Your task to perform on an android device: turn vacation reply on in the gmail app Image 0: 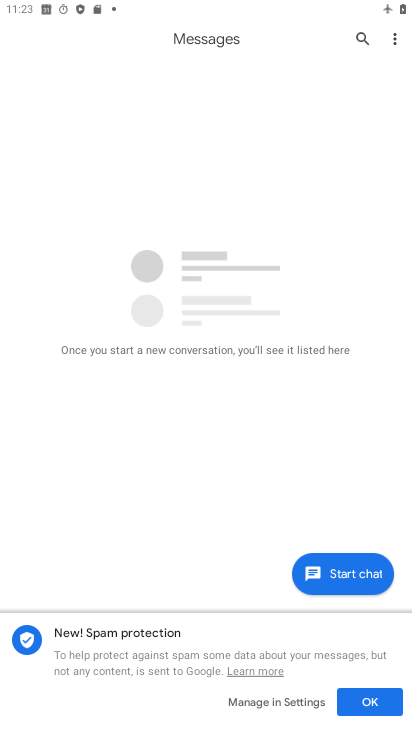
Step 0: drag from (229, 564) to (344, 361)
Your task to perform on an android device: turn vacation reply on in the gmail app Image 1: 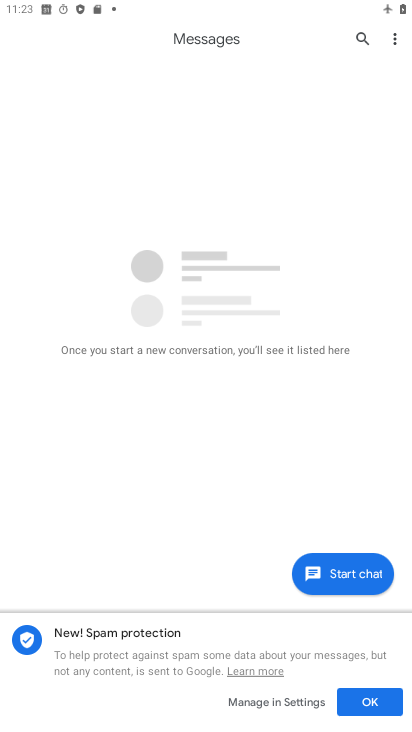
Step 1: press home button
Your task to perform on an android device: turn vacation reply on in the gmail app Image 2: 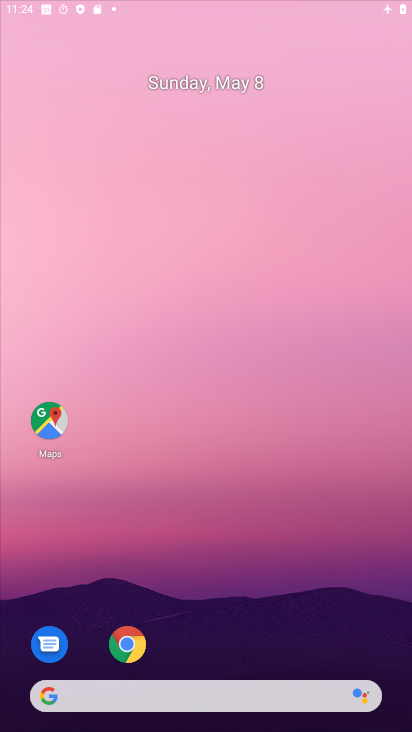
Step 2: drag from (220, 597) to (239, 160)
Your task to perform on an android device: turn vacation reply on in the gmail app Image 3: 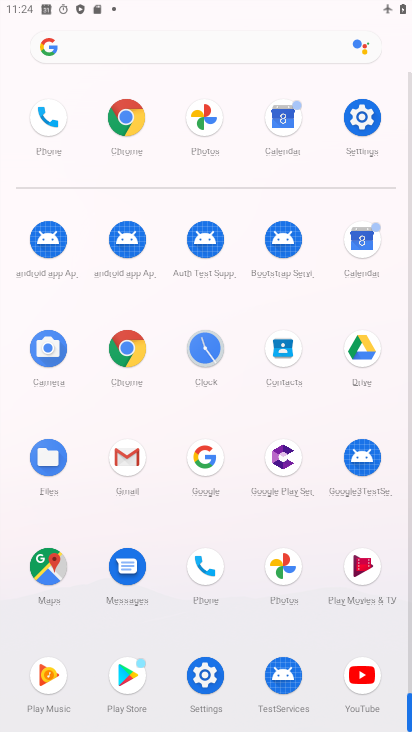
Step 3: click (130, 451)
Your task to perform on an android device: turn vacation reply on in the gmail app Image 4: 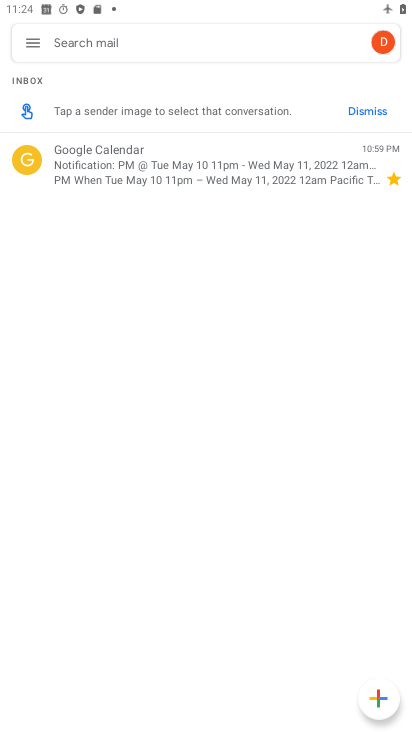
Step 4: click (29, 44)
Your task to perform on an android device: turn vacation reply on in the gmail app Image 5: 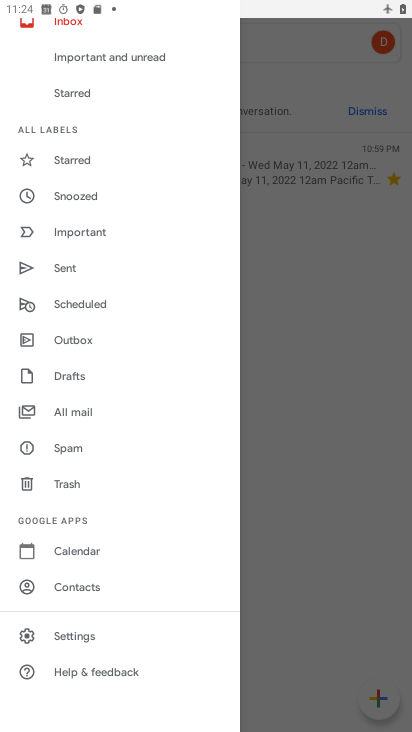
Step 5: click (91, 623)
Your task to perform on an android device: turn vacation reply on in the gmail app Image 6: 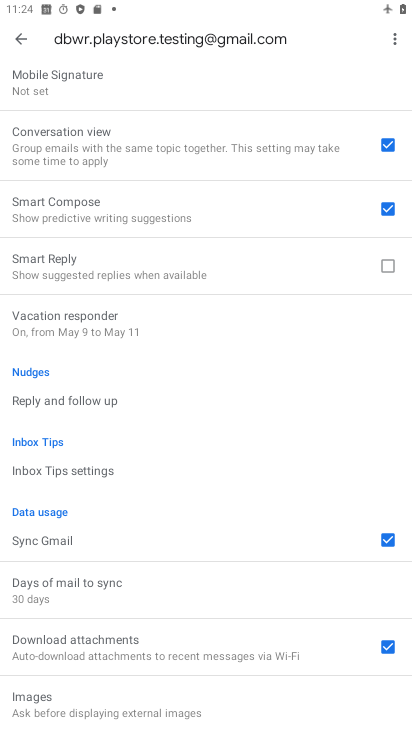
Step 6: click (104, 319)
Your task to perform on an android device: turn vacation reply on in the gmail app Image 7: 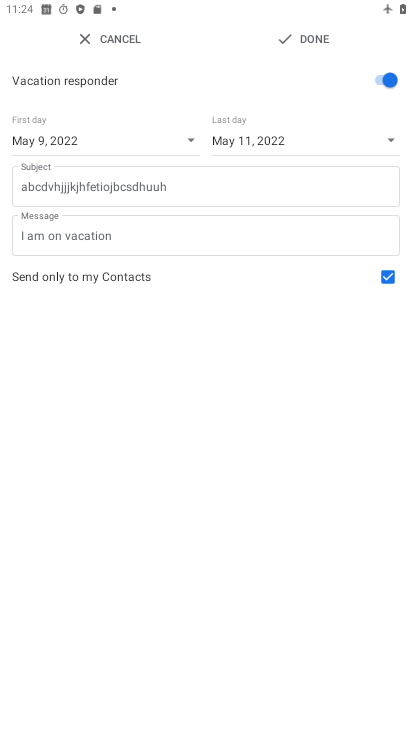
Step 7: click (296, 38)
Your task to perform on an android device: turn vacation reply on in the gmail app Image 8: 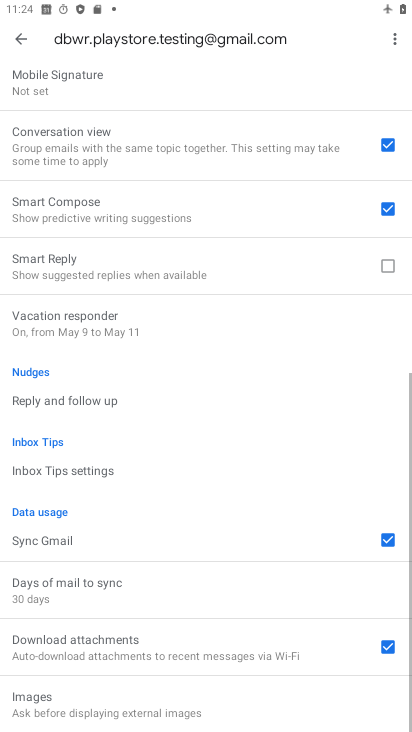
Step 8: task complete